Your task to perform on an android device: turn on the 24-hour format for clock Image 0: 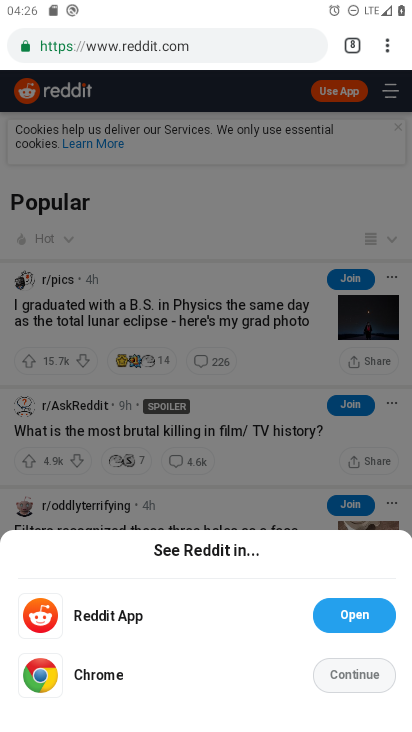
Step 0: press back button
Your task to perform on an android device: turn on the 24-hour format for clock Image 1: 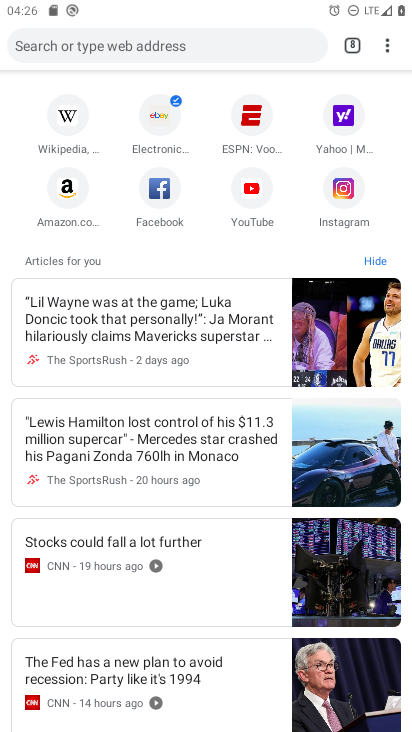
Step 1: press back button
Your task to perform on an android device: turn on the 24-hour format for clock Image 2: 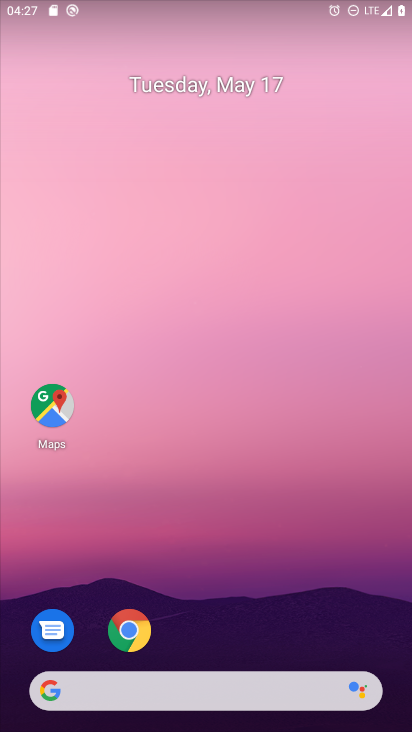
Step 2: drag from (270, 509) to (312, 7)
Your task to perform on an android device: turn on the 24-hour format for clock Image 3: 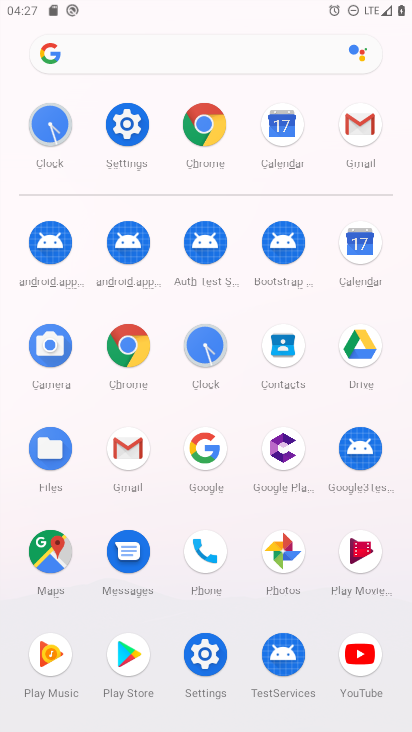
Step 3: click (201, 348)
Your task to perform on an android device: turn on the 24-hour format for clock Image 4: 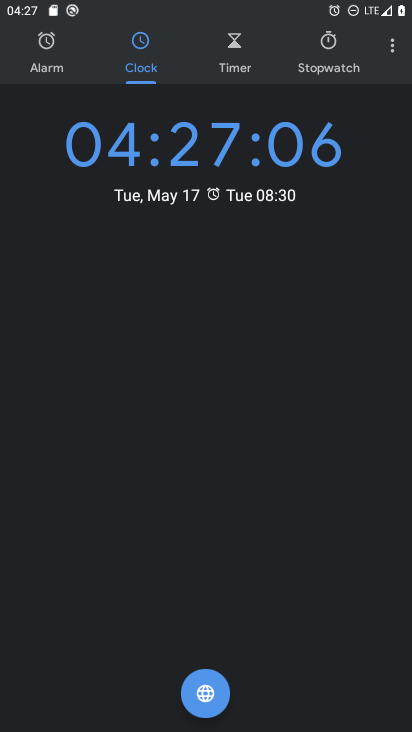
Step 4: click (393, 46)
Your task to perform on an android device: turn on the 24-hour format for clock Image 5: 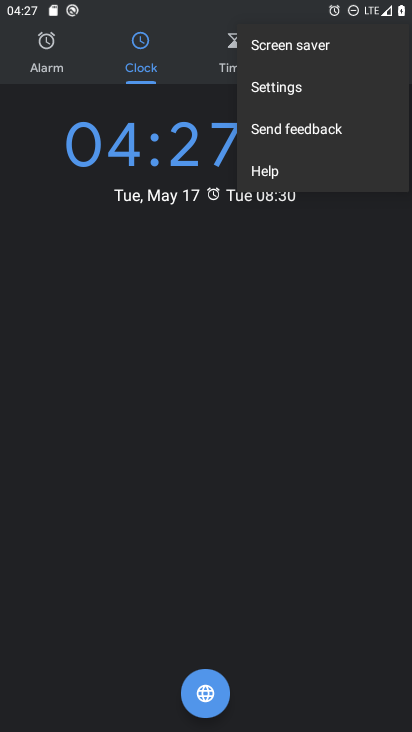
Step 5: click (280, 82)
Your task to perform on an android device: turn on the 24-hour format for clock Image 6: 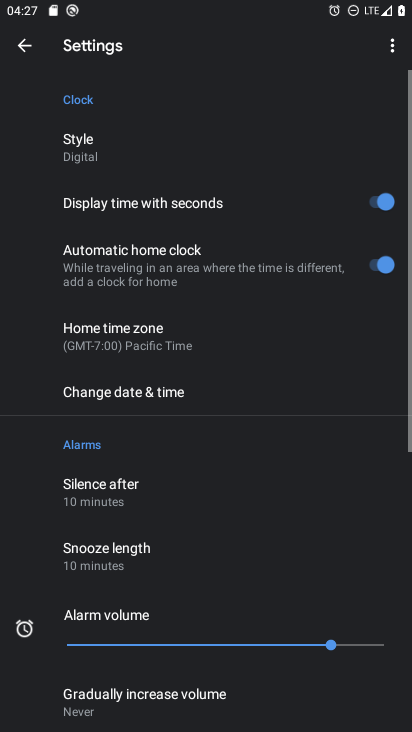
Step 6: click (169, 388)
Your task to perform on an android device: turn on the 24-hour format for clock Image 7: 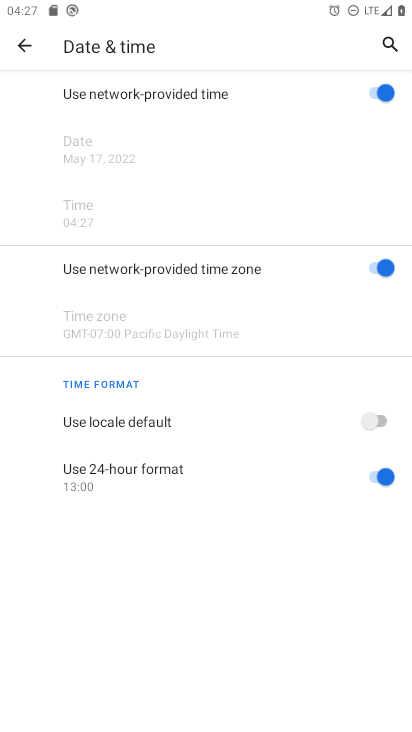
Step 7: task complete